Your task to perform on an android device: change the upload size in google photos Image 0: 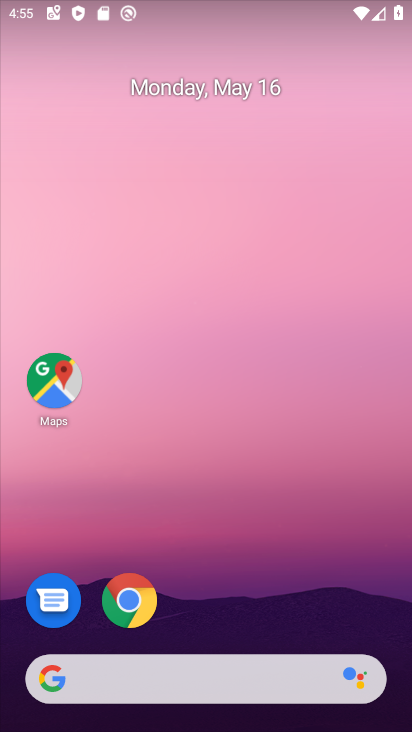
Step 0: drag from (185, 655) to (244, 22)
Your task to perform on an android device: change the upload size in google photos Image 1: 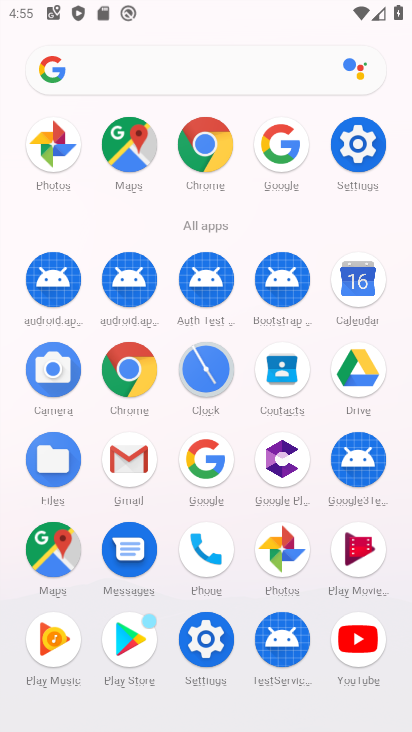
Step 1: click (267, 558)
Your task to perform on an android device: change the upload size in google photos Image 2: 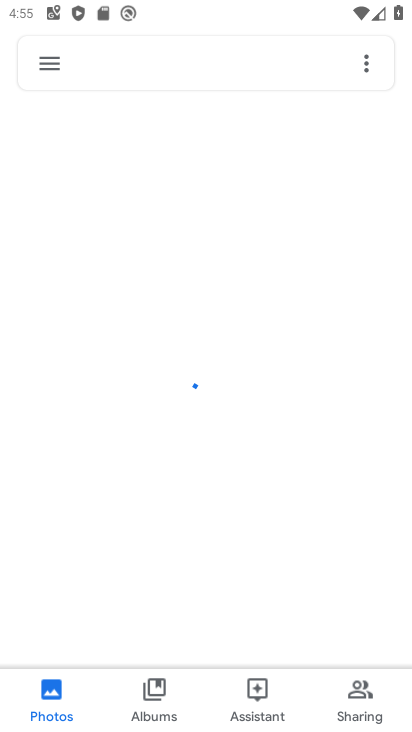
Step 2: click (48, 59)
Your task to perform on an android device: change the upload size in google photos Image 3: 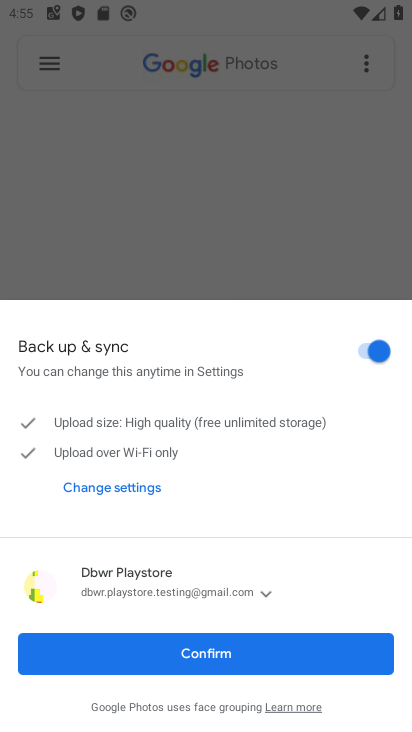
Step 3: click (132, 493)
Your task to perform on an android device: change the upload size in google photos Image 4: 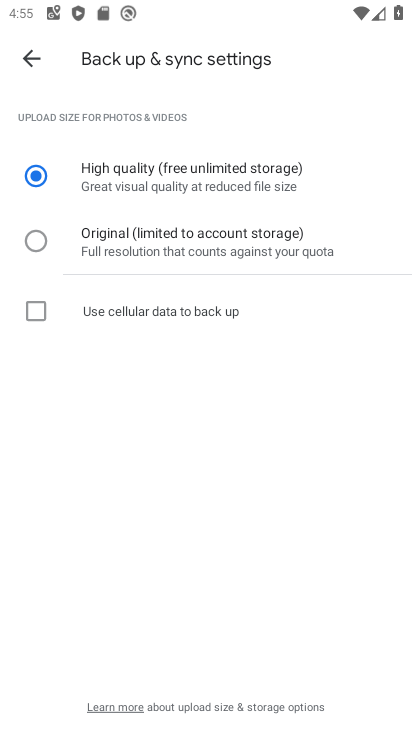
Step 4: click (108, 237)
Your task to perform on an android device: change the upload size in google photos Image 5: 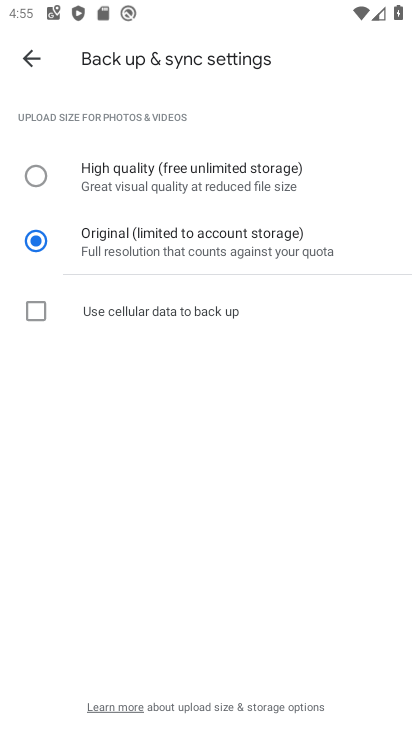
Step 5: task complete